Your task to perform on an android device: turn notification dots on Image 0: 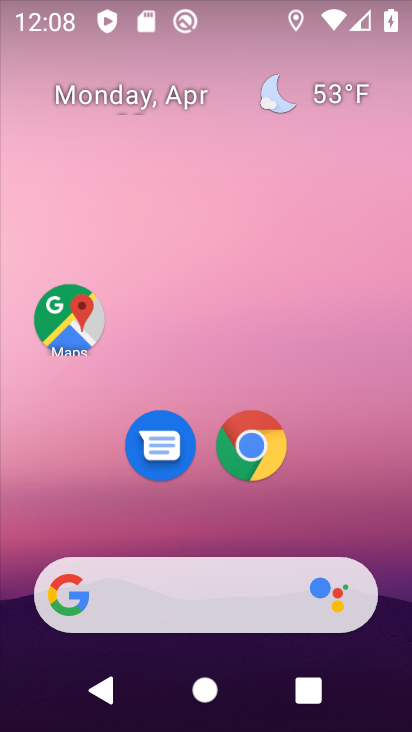
Step 0: drag from (317, 546) to (270, 91)
Your task to perform on an android device: turn notification dots on Image 1: 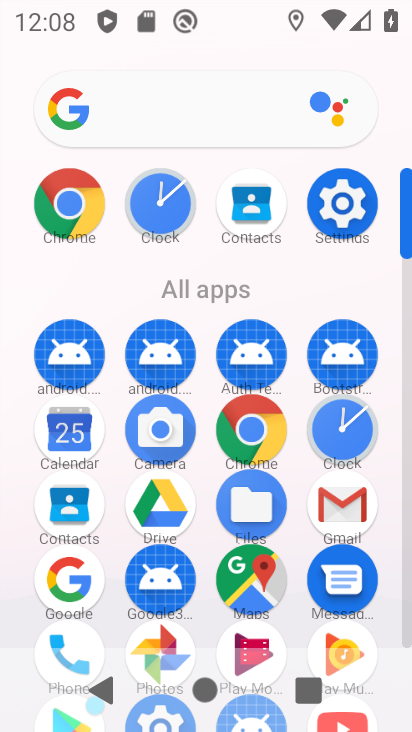
Step 1: click (344, 197)
Your task to perform on an android device: turn notification dots on Image 2: 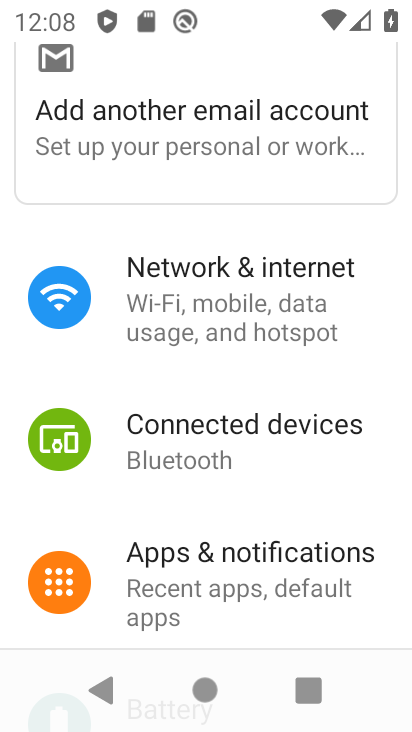
Step 2: click (239, 583)
Your task to perform on an android device: turn notification dots on Image 3: 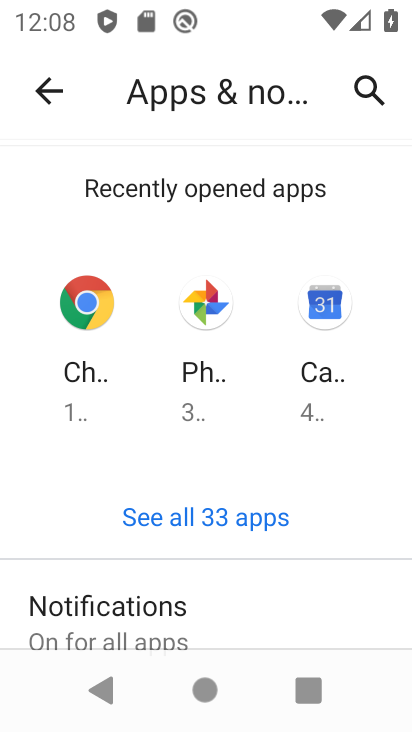
Step 3: click (191, 605)
Your task to perform on an android device: turn notification dots on Image 4: 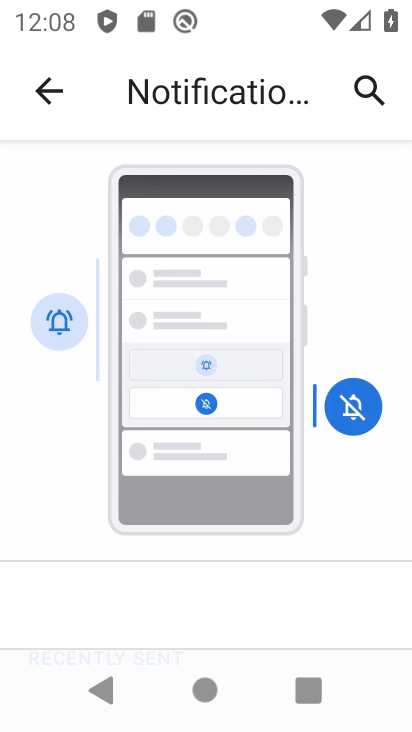
Step 4: drag from (248, 601) to (192, 224)
Your task to perform on an android device: turn notification dots on Image 5: 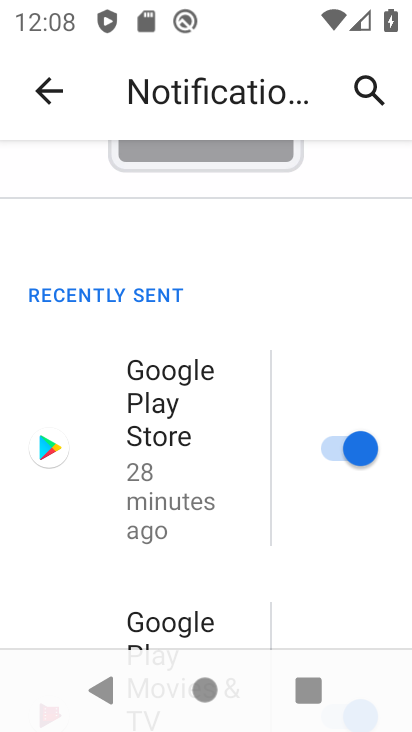
Step 5: drag from (247, 562) to (219, 144)
Your task to perform on an android device: turn notification dots on Image 6: 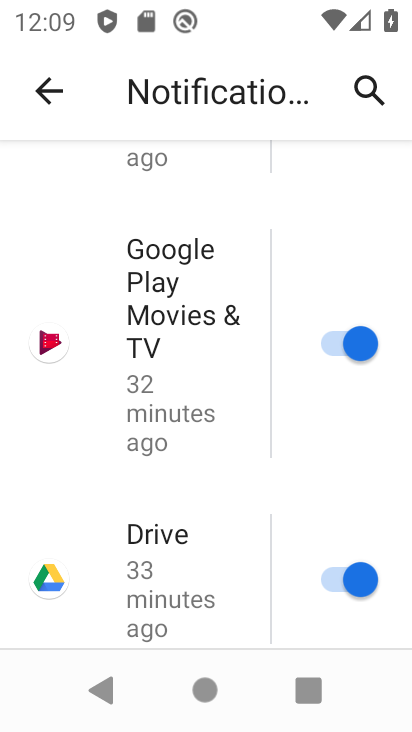
Step 6: drag from (235, 602) to (301, 130)
Your task to perform on an android device: turn notification dots on Image 7: 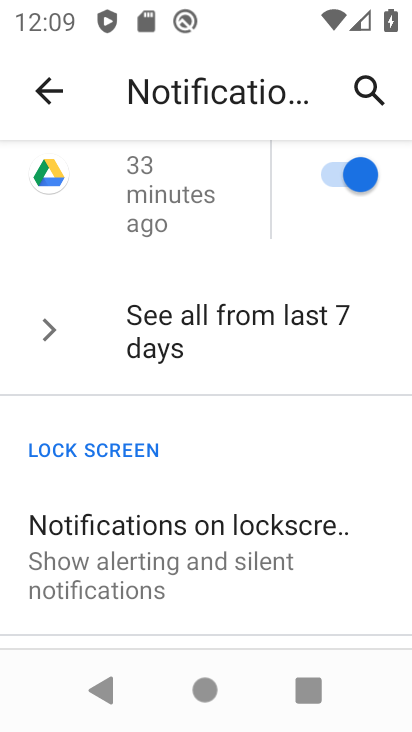
Step 7: drag from (249, 616) to (201, 182)
Your task to perform on an android device: turn notification dots on Image 8: 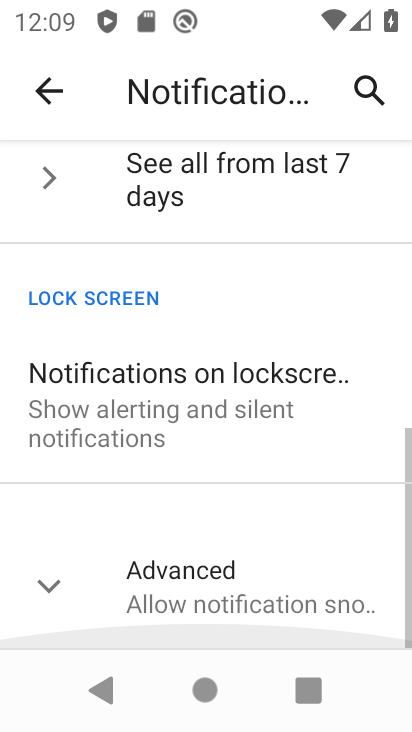
Step 8: click (207, 582)
Your task to perform on an android device: turn notification dots on Image 9: 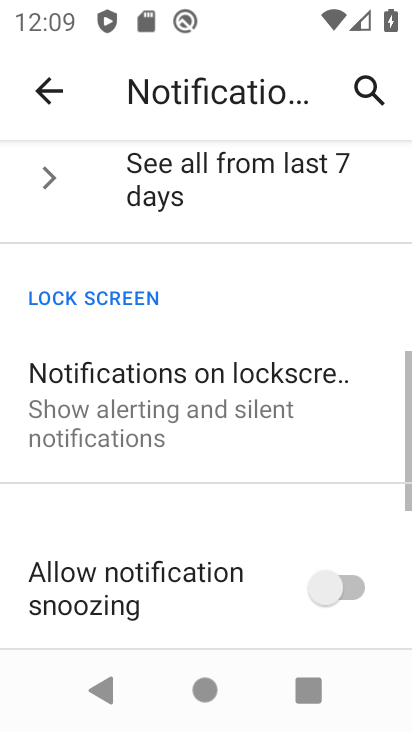
Step 9: task complete